Your task to perform on an android device: Open Google Maps Image 0: 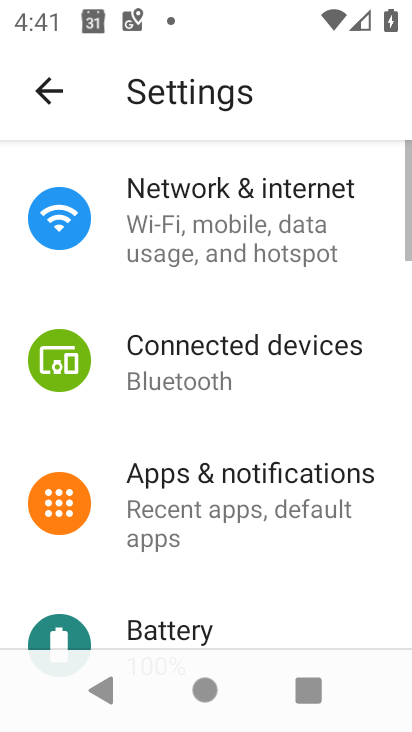
Step 0: press home button
Your task to perform on an android device: Open Google Maps Image 1: 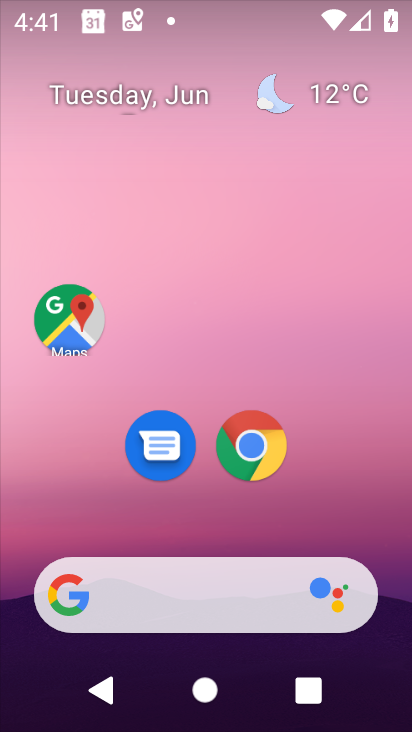
Step 1: drag from (356, 424) to (339, 74)
Your task to perform on an android device: Open Google Maps Image 2: 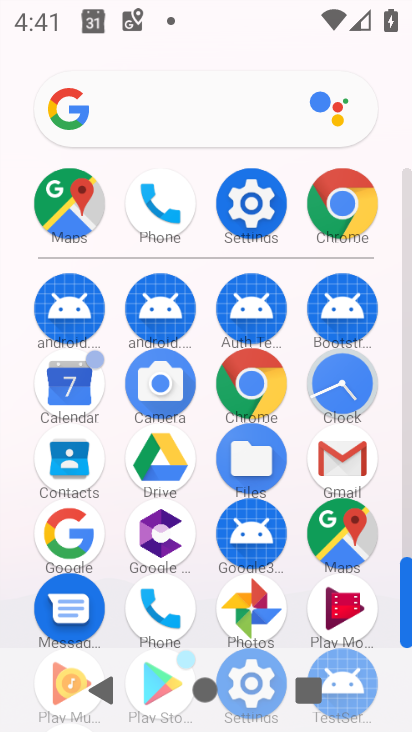
Step 2: click (63, 172)
Your task to perform on an android device: Open Google Maps Image 3: 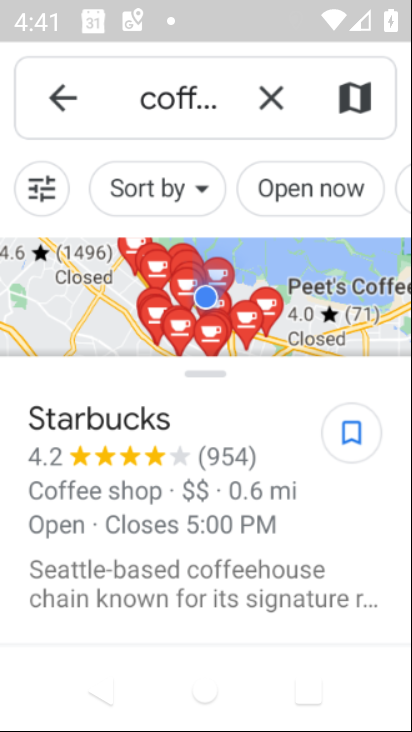
Step 3: task complete